Your task to perform on an android device: Open Android settings Image 0: 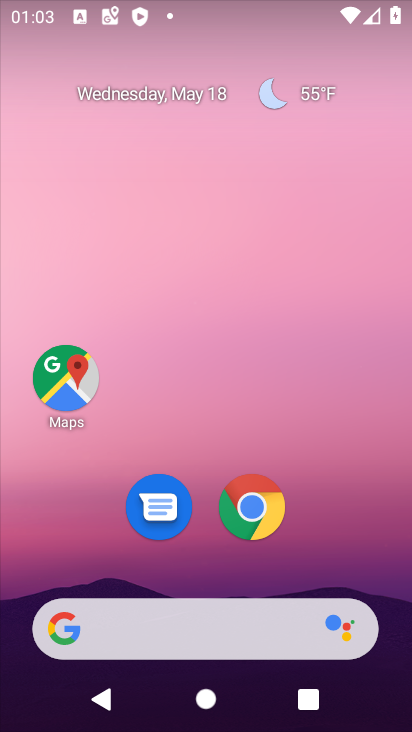
Step 0: drag from (394, 629) to (312, 184)
Your task to perform on an android device: Open Android settings Image 1: 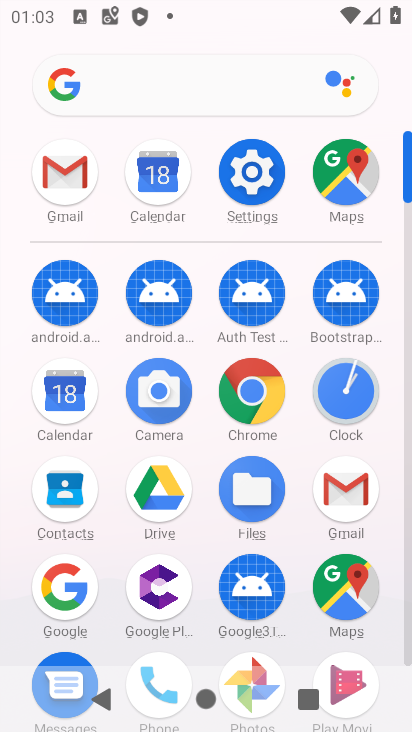
Step 1: click (411, 652)
Your task to perform on an android device: Open Android settings Image 2: 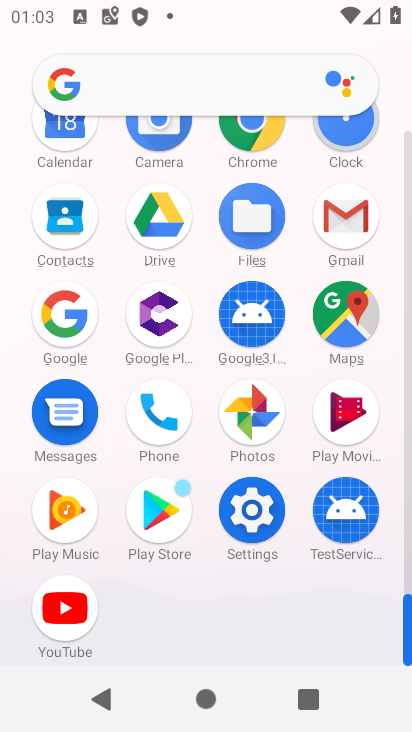
Step 2: click (250, 510)
Your task to perform on an android device: Open Android settings Image 3: 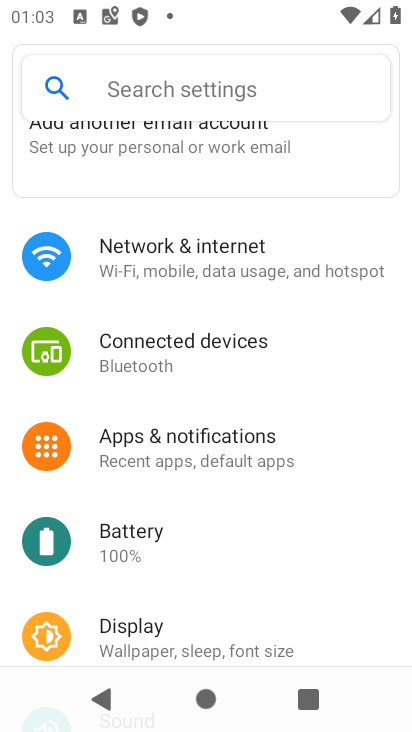
Step 3: drag from (299, 646) to (278, 283)
Your task to perform on an android device: Open Android settings Image 4: 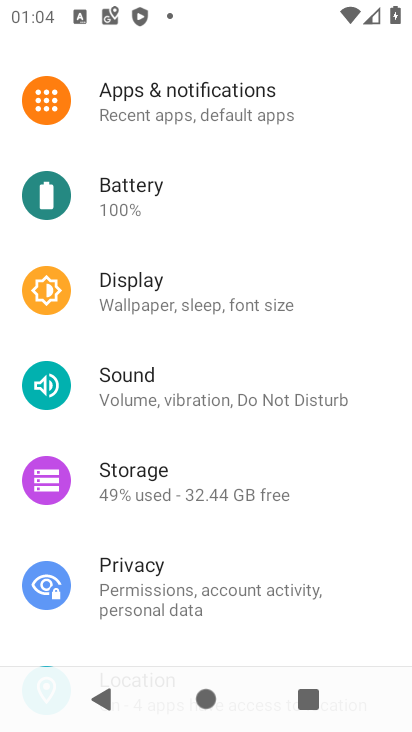
Step 4: drag from (310, 597) to (317, 275)
Your task to perform on an android device: Open Android settings Image 5: 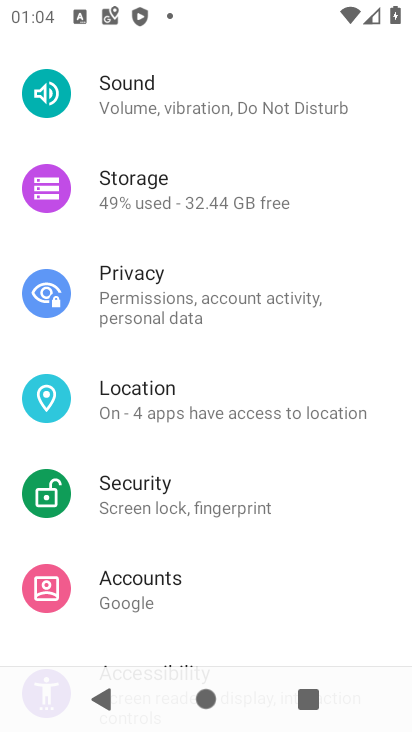
Step 5: drag from (306, 567) to (303, 356)
Your task to perform on an android device: Open Android settings Image 6: 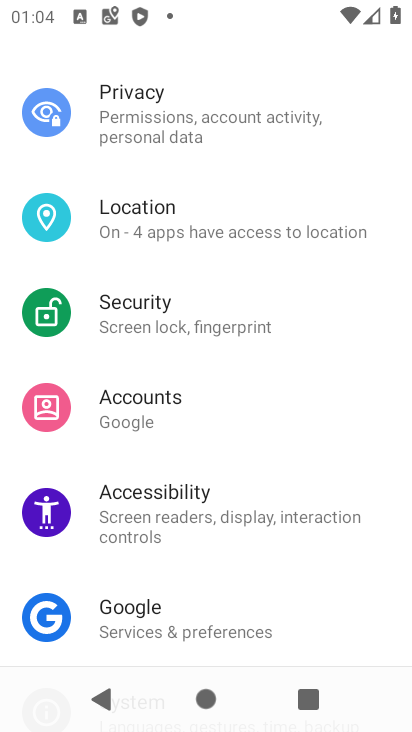
Step 6: drag from (268, 599) to (237, 257)
Your task to perform on an android device: Open Android settings Image 7: 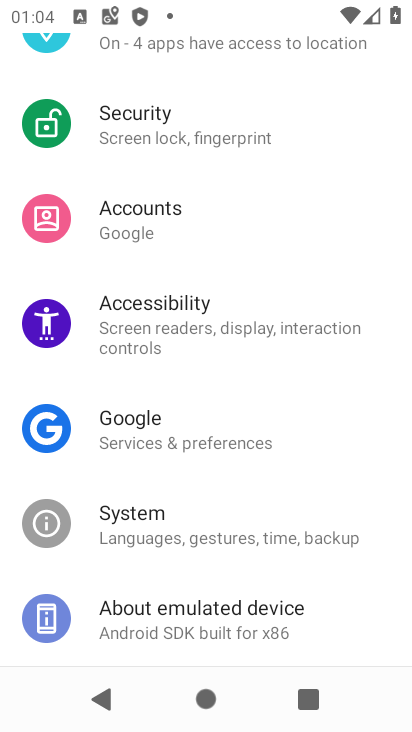
Step 7: drag from (286, 525) to (246, 221)
Your task to perform on an android device: Open Android settings Image 8: 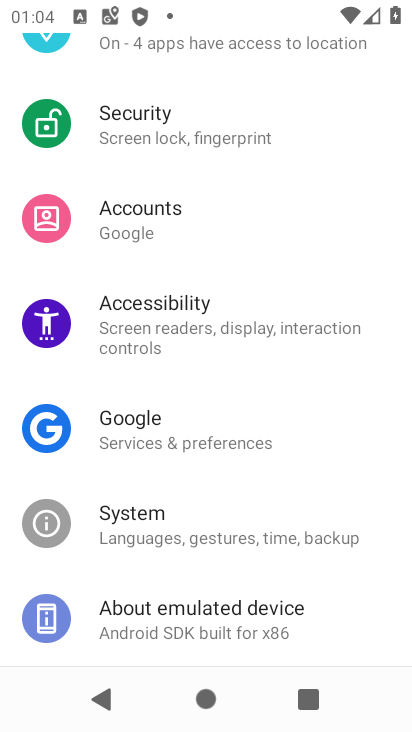
Step 8: click (177, 635)
Your task to perform on an android device: Open Android settings Image 9: 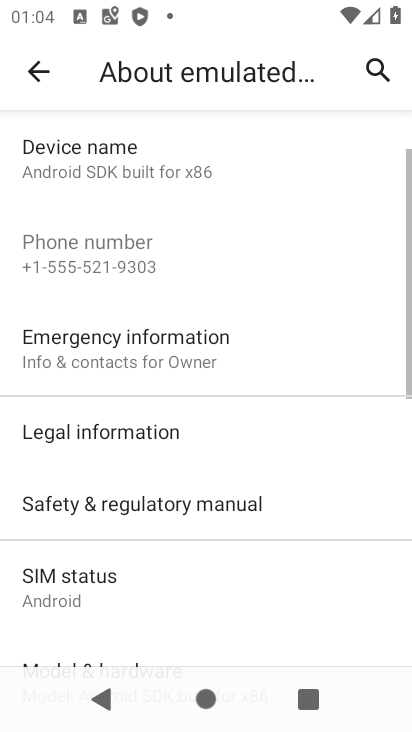
Step 9: task complete